Your task to perform on an android device: remove spam from my inbox in the gmail app Image 0: 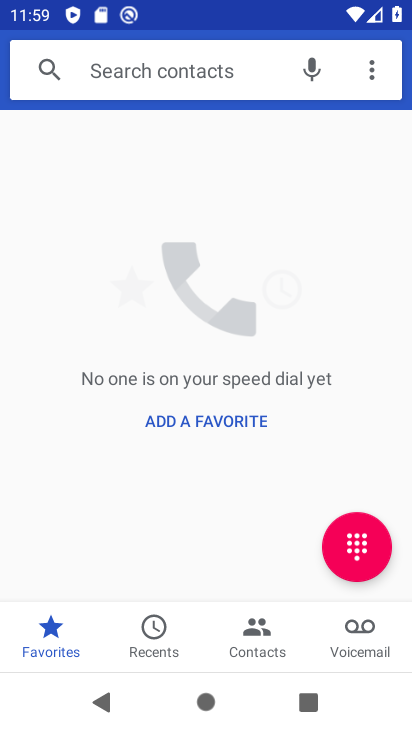
Step 0: press home button
Your task to perform on an android device: remove spam from my inbox in the gmail app Image 1: 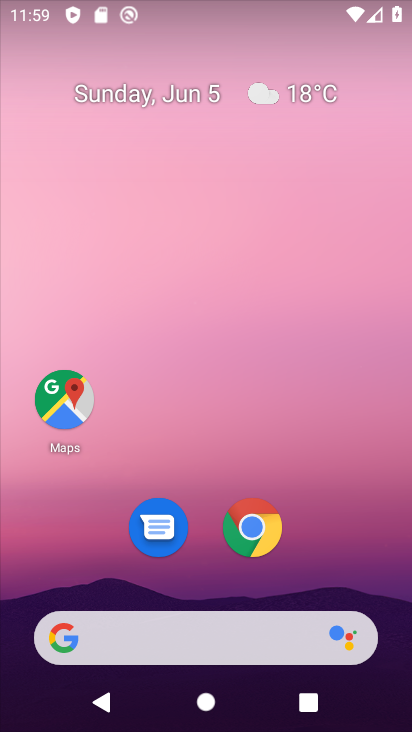
Step 1: drag from (222, 601) to (185, 65)
Your task to perform on an android device: remove spam from my inbox in the gmail app Image 2: 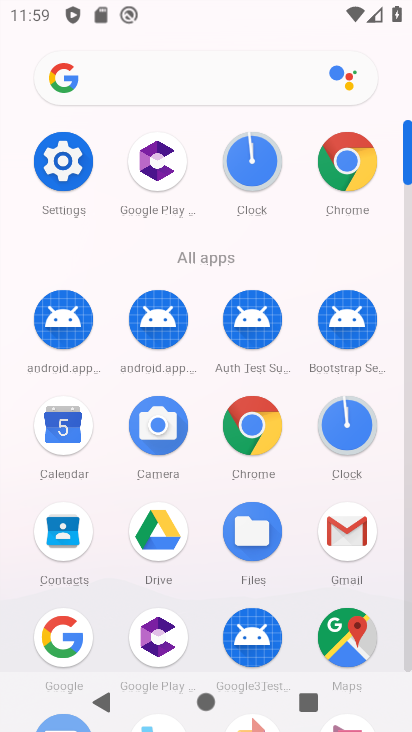
Step 2: click (345, 540)
Your task to perform on an android device: remove spam from my inbox in the gmail app Image 3: 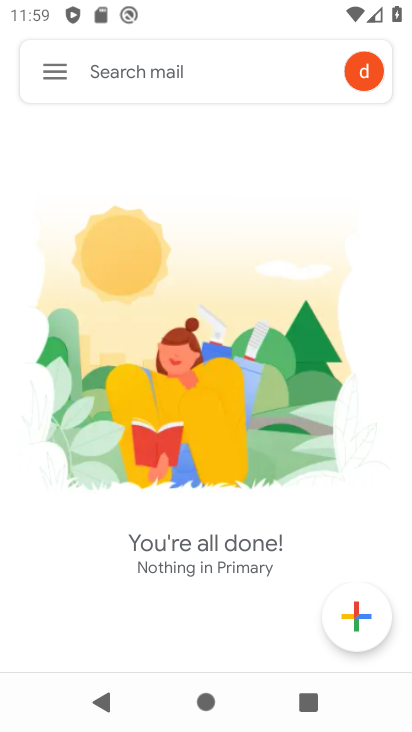
Step 3: click (64, 74)
Your task to perform on an android device: remove spam from my inbox in the gmail app Image 4: 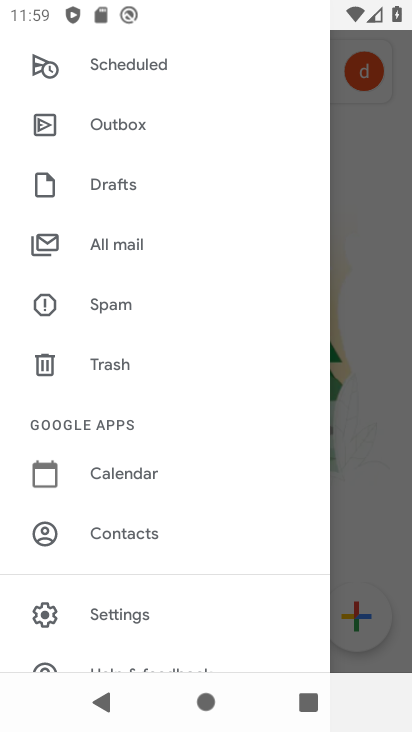
Step 4: click (115, 285)
Your task to perform on an android device: remove spam from my inbox in the gmail app Image 5: 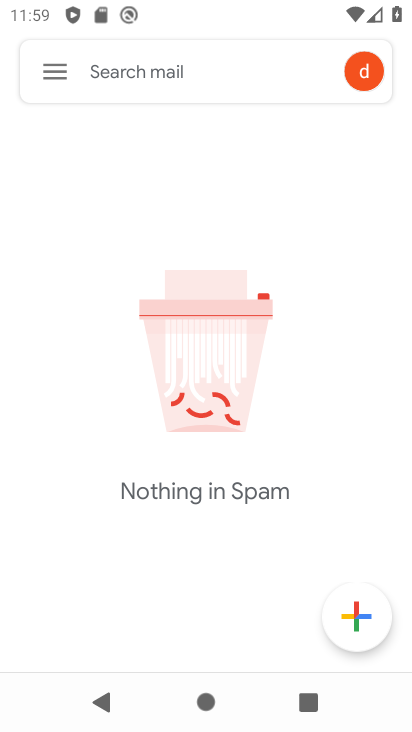
Step 5: task complete